Your task to perform on an android device: Check the news Image 0: 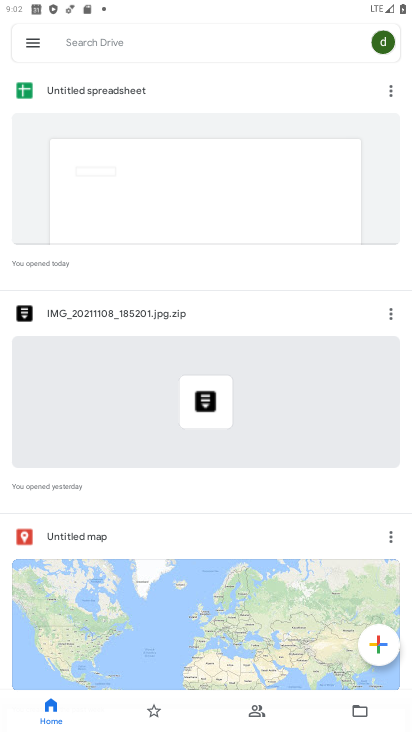
Step 0: press home button
Your task to perform on an android device: Check the news Image 1: 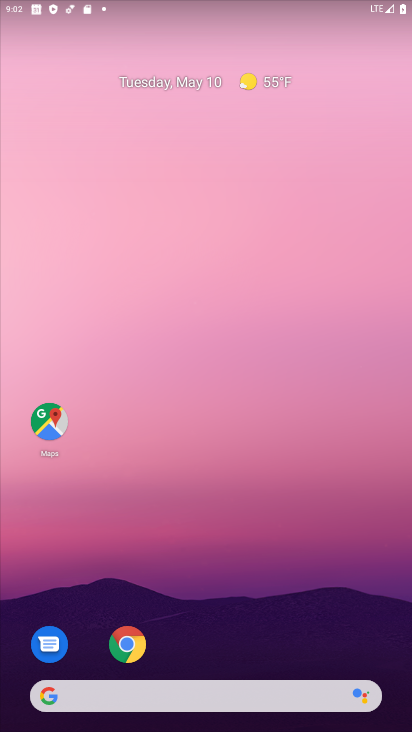
Step 1: drag from (217, 575) to (221, 72)
Your task to perform on an android device: Check the news Image 2: 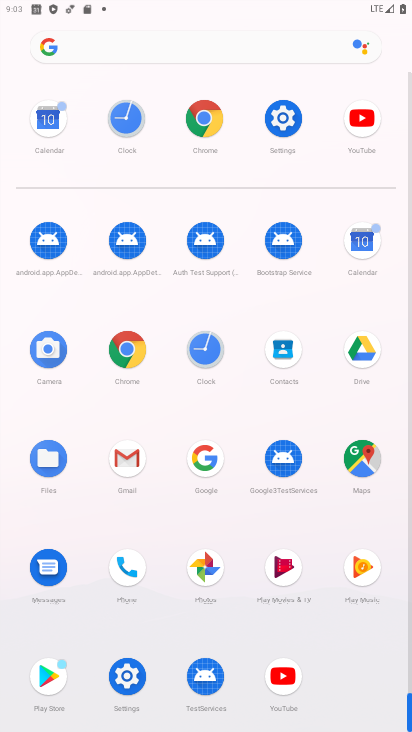
Step 2: click (208, 465)
Your task to perform on an android device: Check the news Image 3: 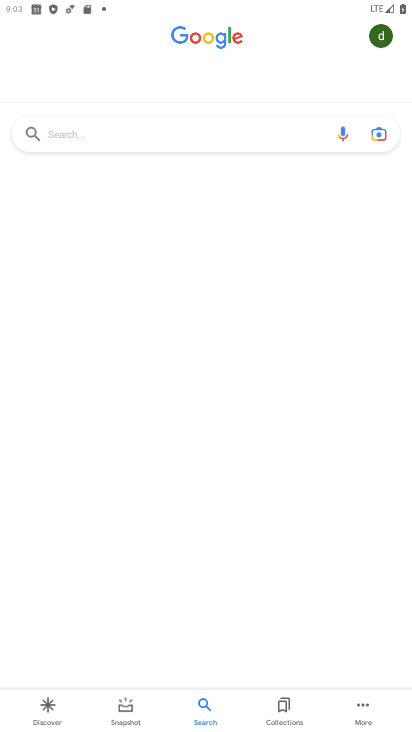
Step 3: click (205, 134)
Your task to perform on an android device: Check the news Image 4: 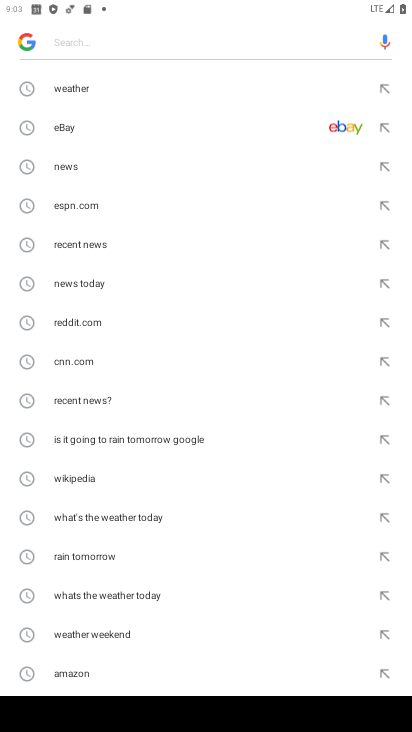
Step 4: click (141, 168)
Your task to perform on an android device: Check the news Image 5: 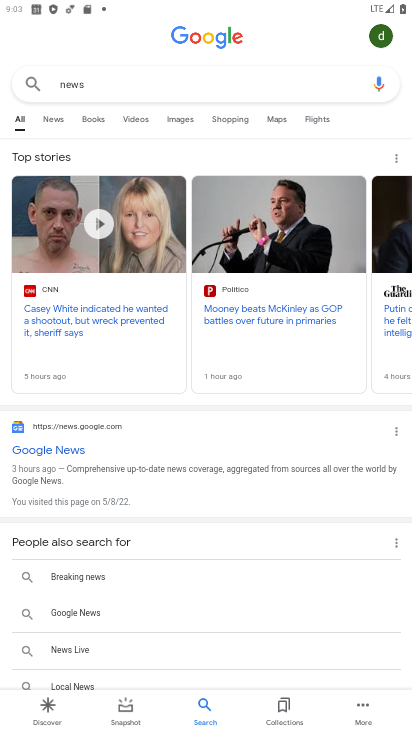
Step 5: click (51, 120)
Your task to perform on an android device: Check the news Image 6: 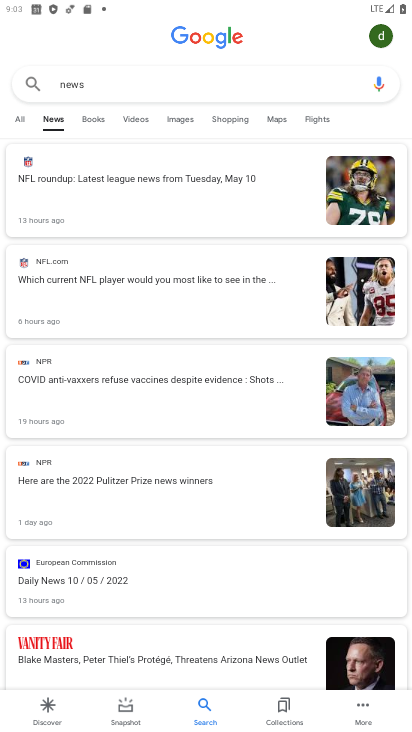
Step 6: task complete